Your task to perform on an android device: open device folders in google photos Image 0: 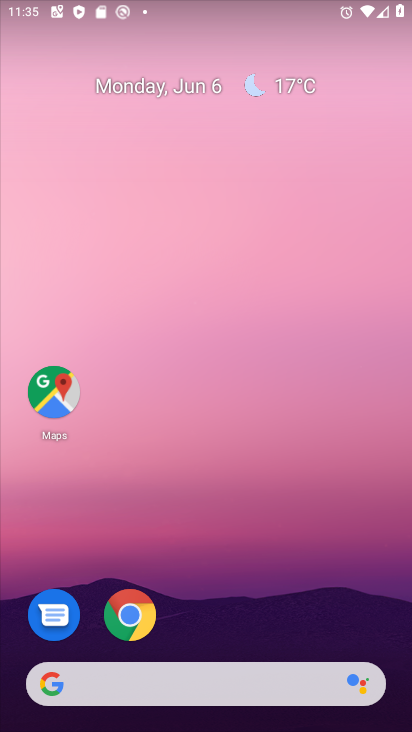
Step 0: press home button
Your task to perform on an android device: open device folders in google photos Image 1: 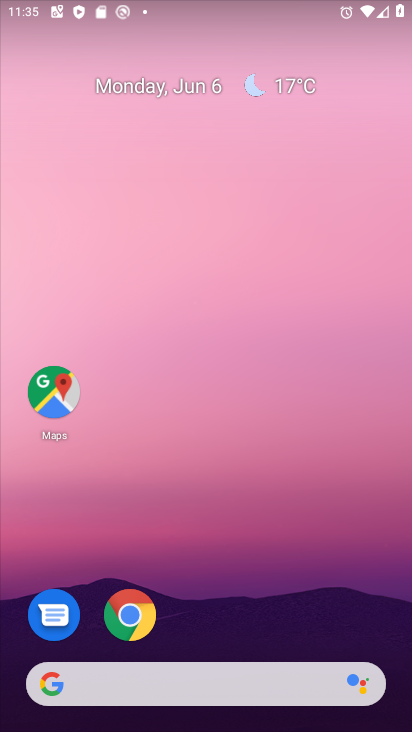
Step 1: drag from (219, 636) to (287, 79)
Your task to perform on an android device: open device folders in google photos Image 2: 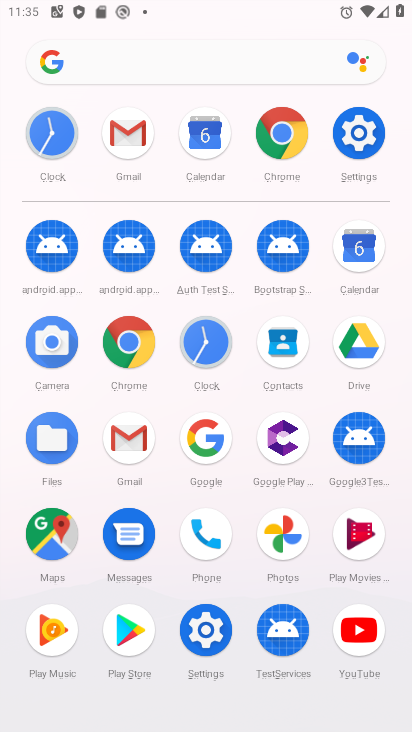
Step 2: click (278, 525)
Your task to perform on an android device: open device folders in google photos Image 3: 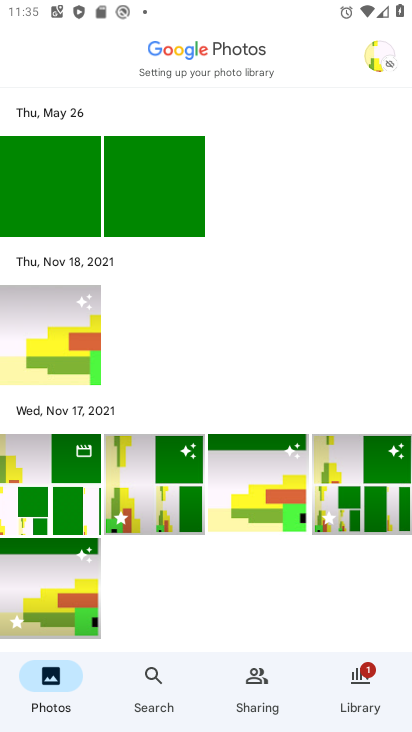
Step 3: click (151, 677)
Your task to perform on an android device: open device folders in google photos Image 4: 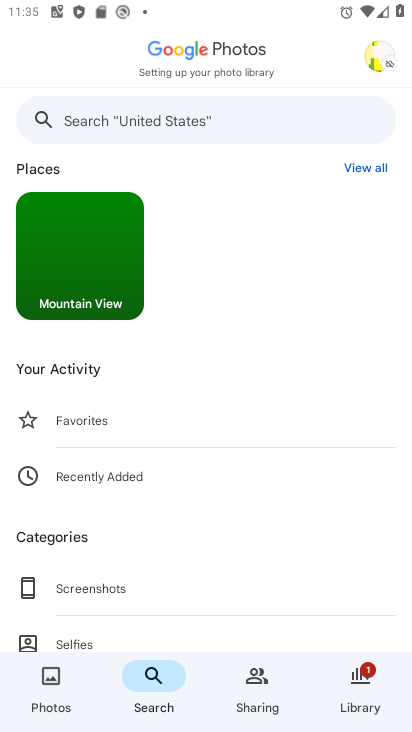
Step 4: click (123, 111)
Your task to perform on an android device: open device folders in google photos Image 5: 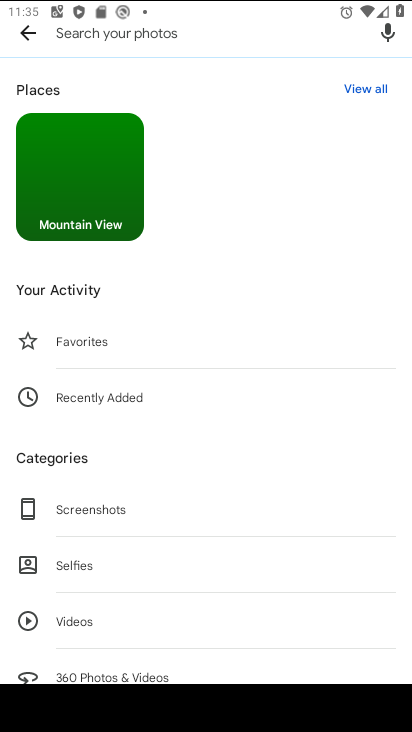
Step 5: type "device"
Your task to perform on an android device: open device folders in google photos Image 6: 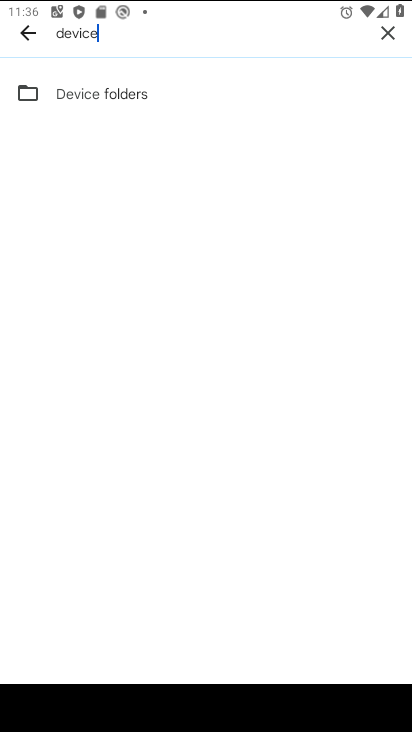
Step 6: click (110, 90)
Your task to perform on an android device: open device folders in google photos Image 7: 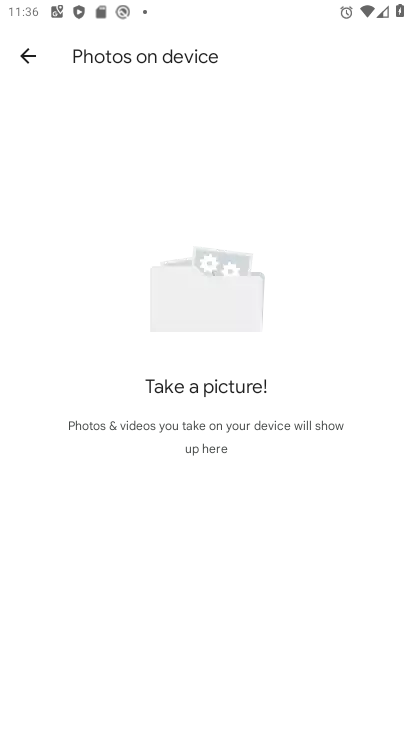
Step 7: task complete